Your task to perform on an android device: turn on translation in the chrome app Image 0: 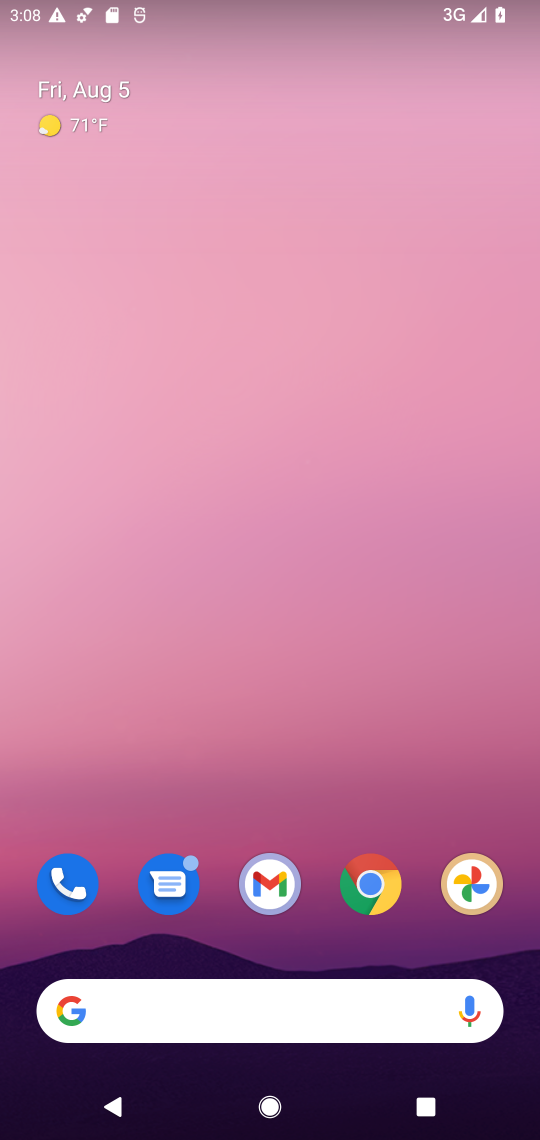
Step 0: click (217, 99)
Your task to perform on an android device: turn on translation in the chrome app Image 1: 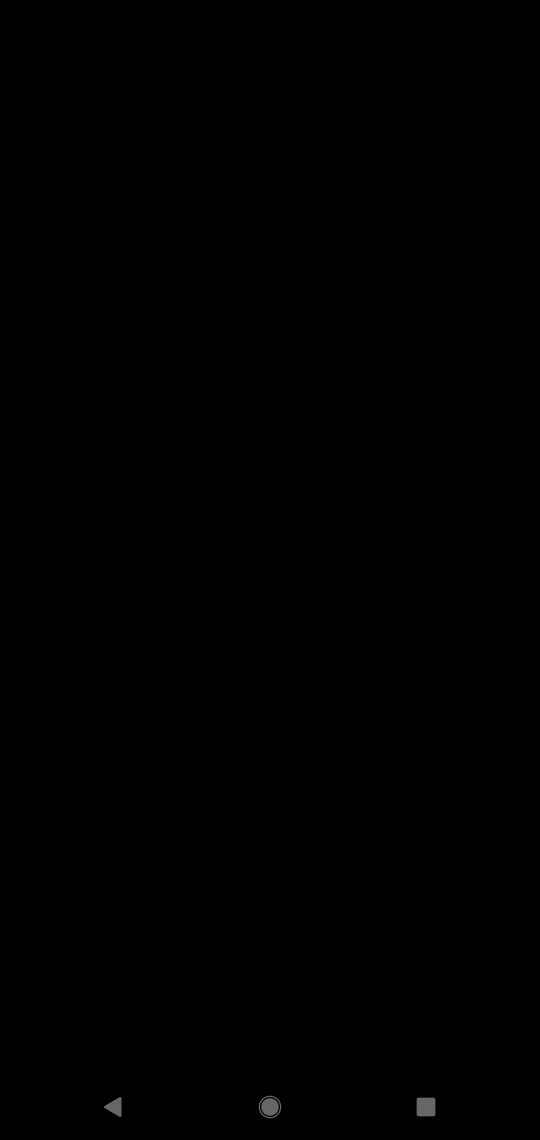
Step 1: press home button
Your task to perform on an android device: turn on translation in the chrome app Image 2: 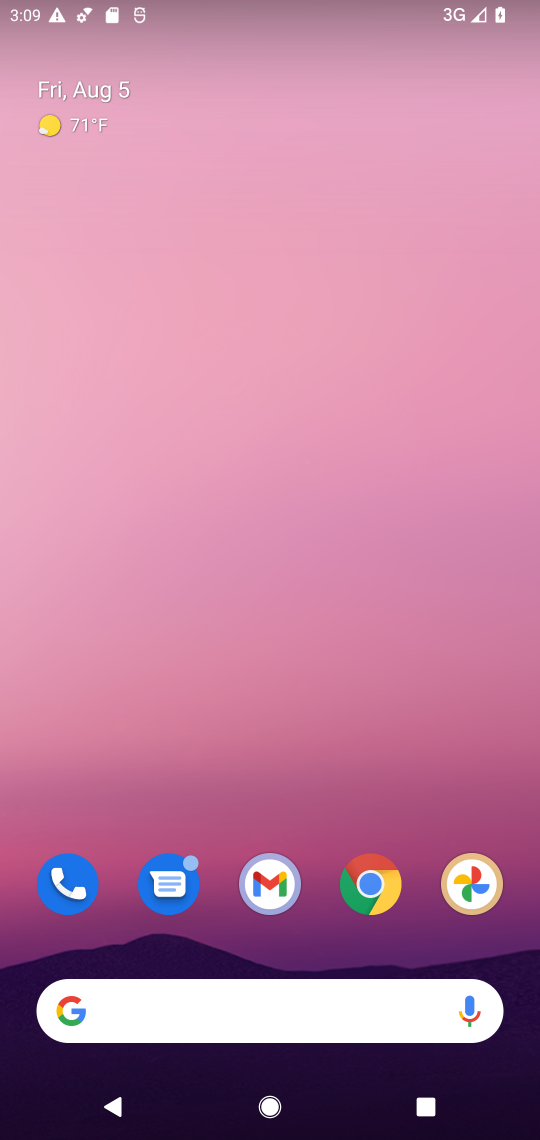
Step 2: drag from (406, 918) to (265, 58)
Your task to perform on an android device: turn on translation in the chrome app Image 3: 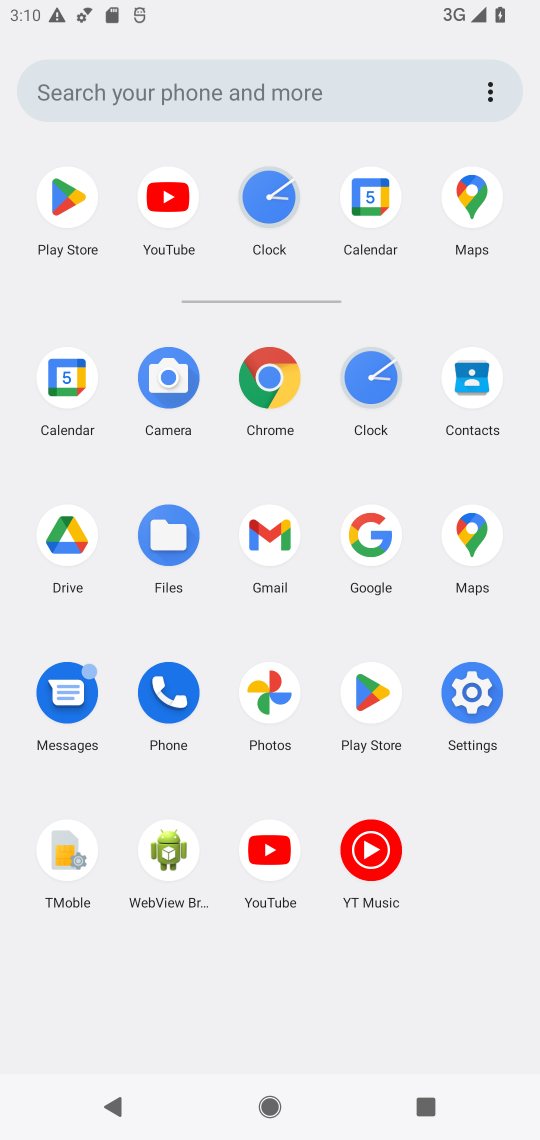
Step 3: click (276, 389)
Your task to perform on an android device: turn on translation in the chrome app Image 4: 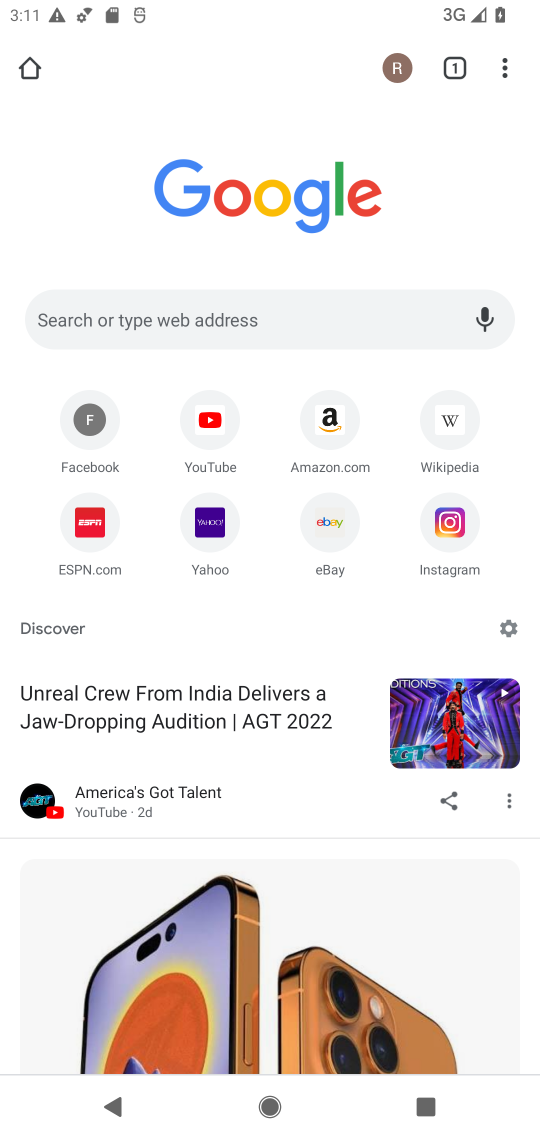
Step 4: click (511, 70)
Your task to perform on an android device: turn on translation in the chrome app Image 5: 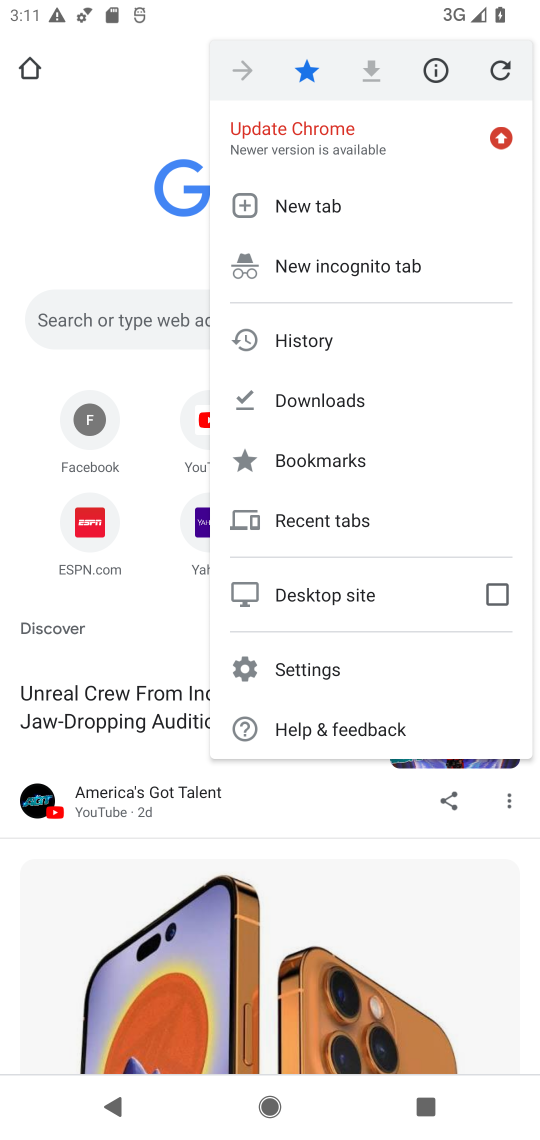
Step 5: click (343, 666)
Your task to perform on an android device: turn on translation in the chrome app Image 6: 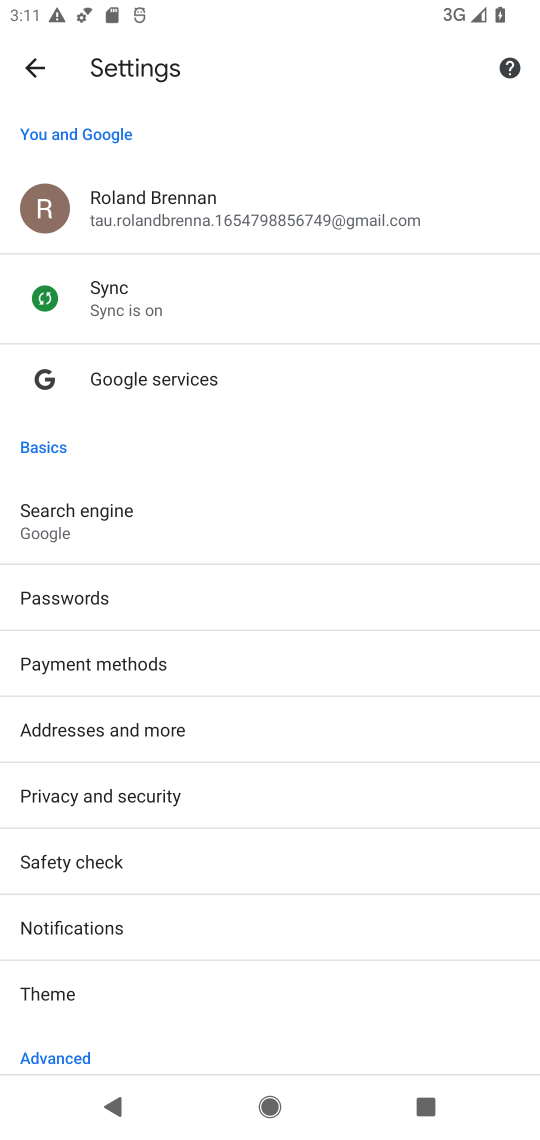
Step 6: drag from (113, 961) to (77, 307)
Your task to perform on an android device: turn on translation in the chrome app Image 7: 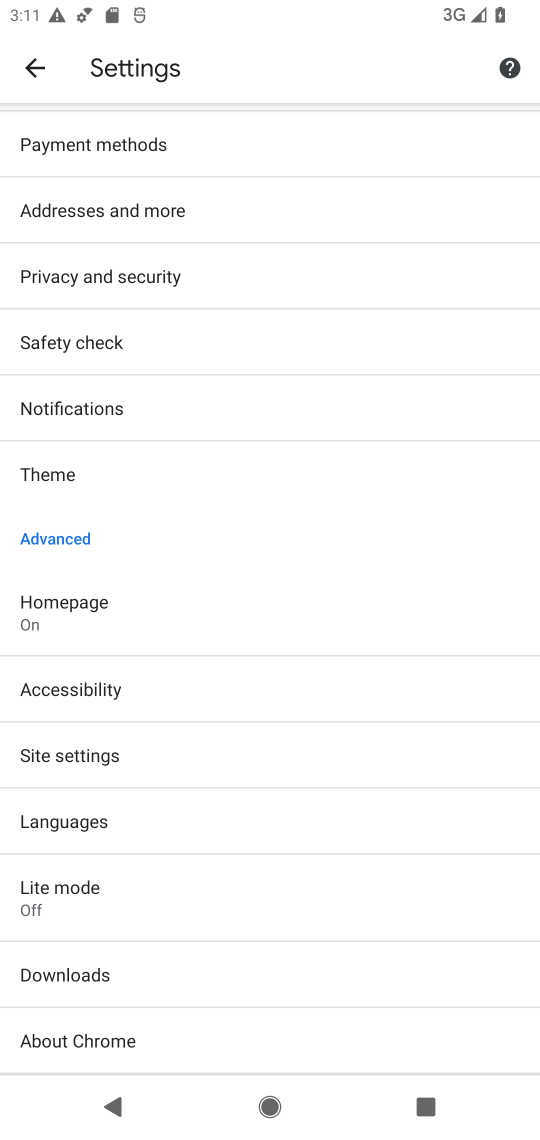
Step 7: click (127, 823)
Your task to perform on an android device: turn on translation in the chrome app Image 8: 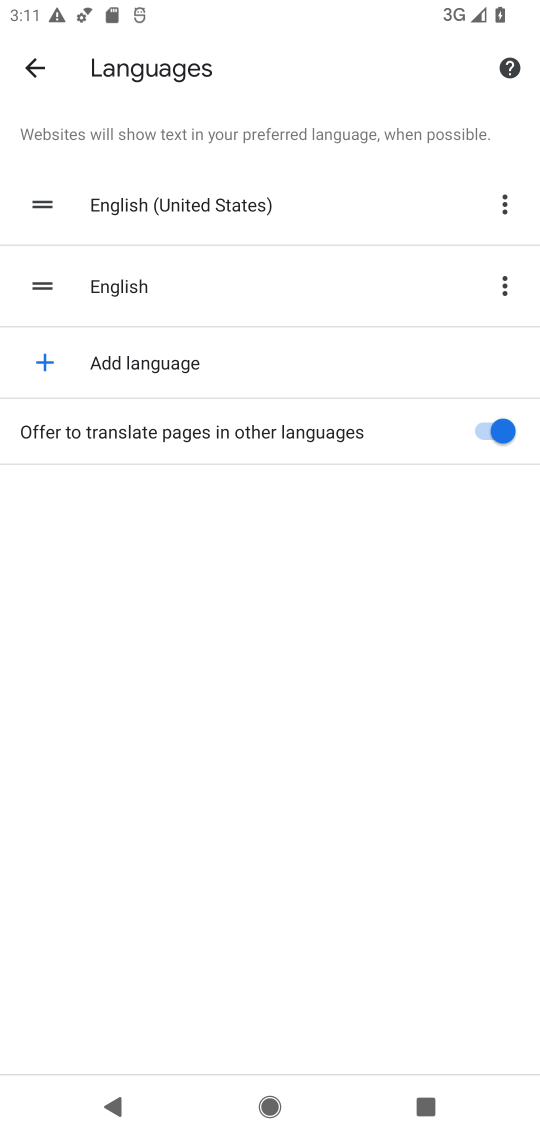
Step 8: task complete